Your task to perform on an android device: Open Android settings Image 0: 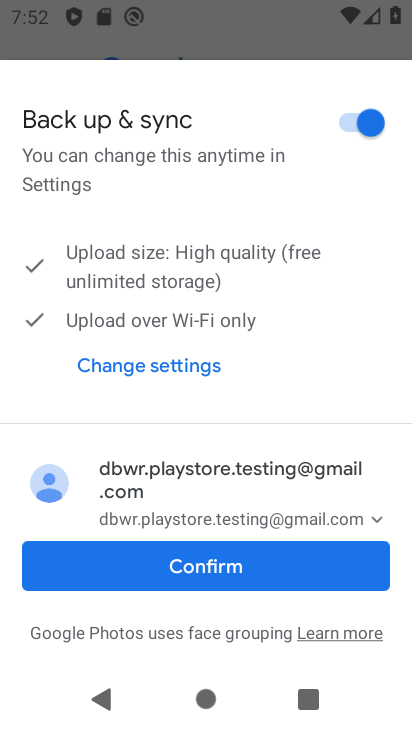
Step 0: press home button
Your task to perform on an android device: Open Android settings Image 1: 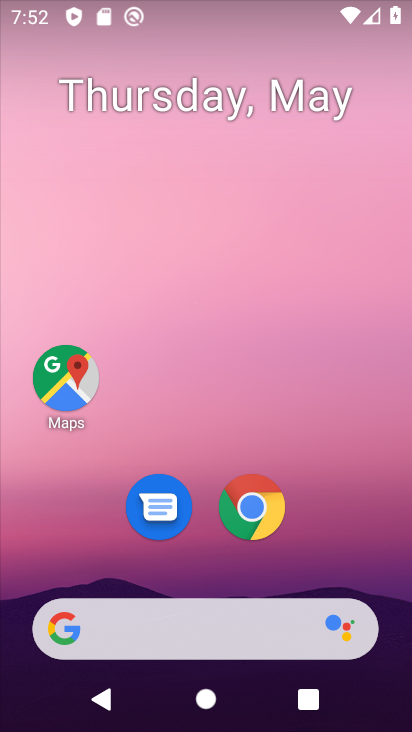
Step 1: drag from (319, 580) to (222, 147)
Your task to perform on an android device: Open Android settings Image 2: 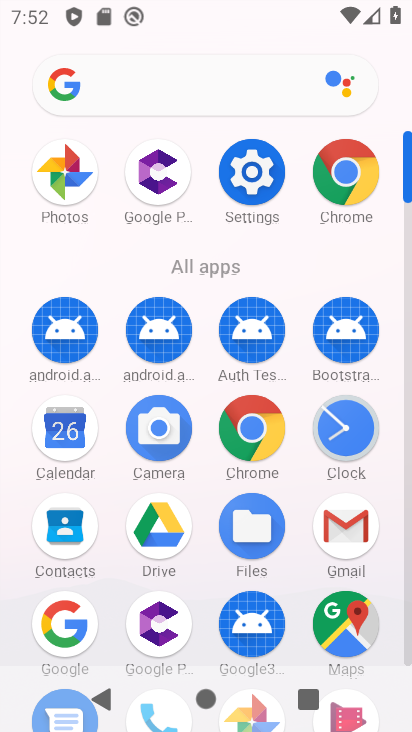
Step 2: click (239, 159)
Your task to perform on an android device: Open Android settings Image 3: 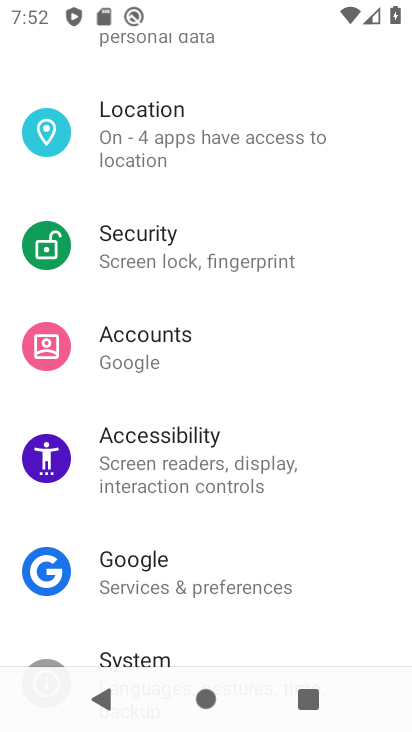
Step 3: task complete